Your task to perform on an android device: delete the emails in spam in the gmail app Image 0: 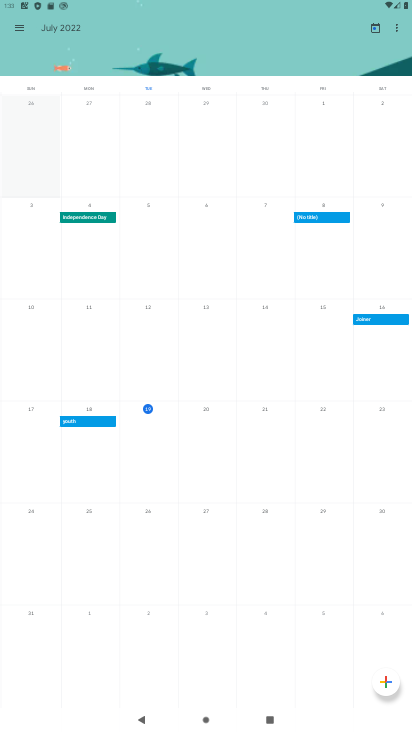
Step 0: press home button
Your task to perform on an android device: delete the emails in spam in the gmail app Image 1: 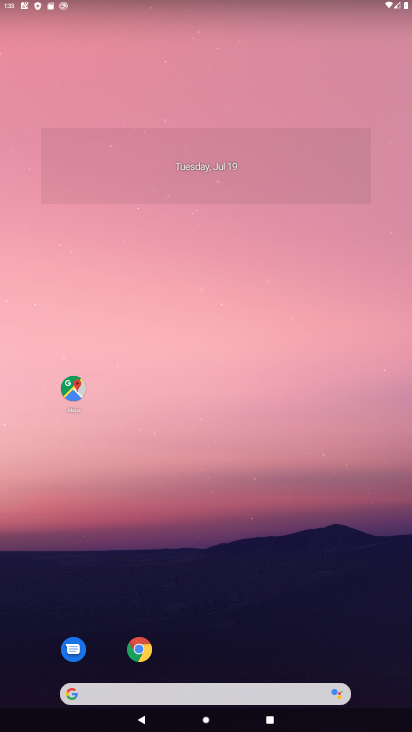
Step 1: drag from (270, 633) to (330, 307)
Your task to perform on an android device: delete the emails in spam in the gmail app Image 2: 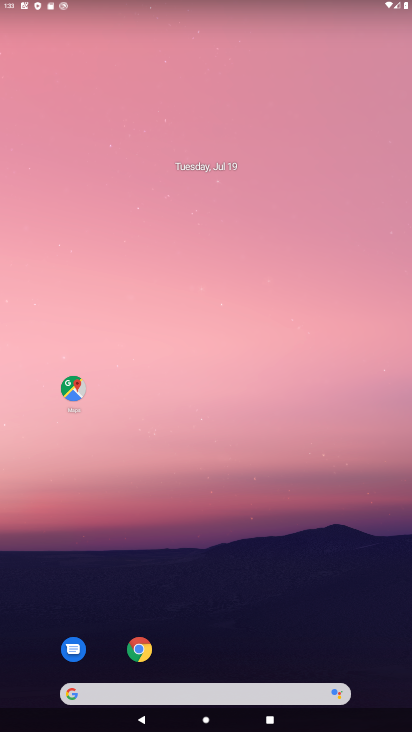
Step 2: drag from (244, 541) to (296, 221)
Your task to perform on an android device: delete the emails in spam in the gmail app Image 3: 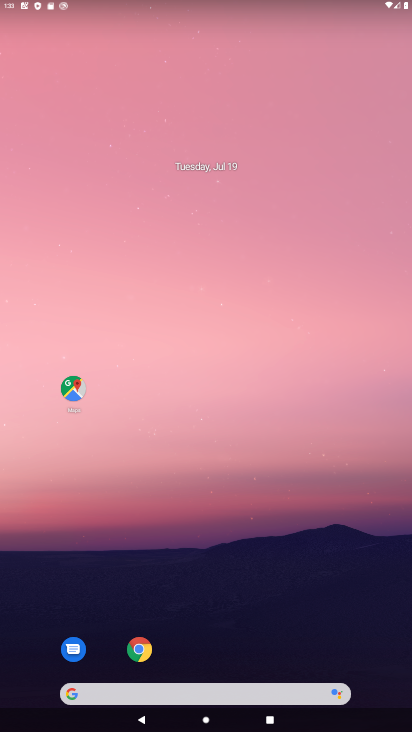
Step 3: drag from (294, 533) to (336, 109)
Your task to perform on an android device: delete the emails in spam in the gmail app Image 4: 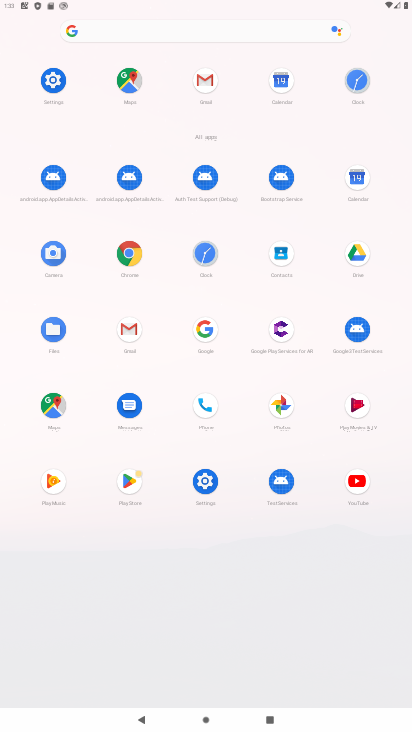
Step 4: click (126, 337)
Your task to perform on an android device: delete the emails in spam in the gmail app Image 5: 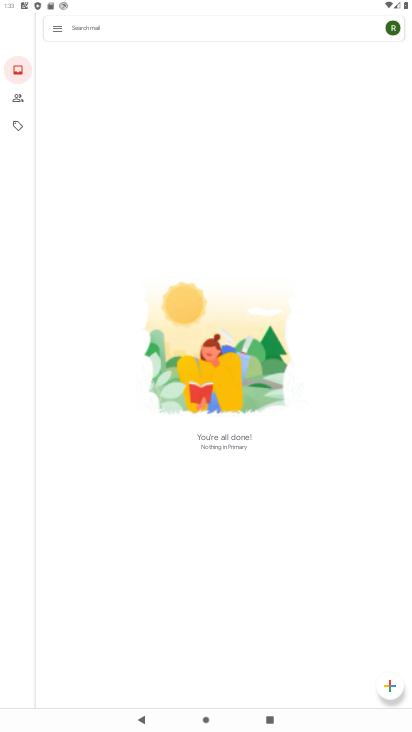
Step 5: click (58, 32)
Your task to perform on an android device: delete the emails in spam in the gmail app Image 6: 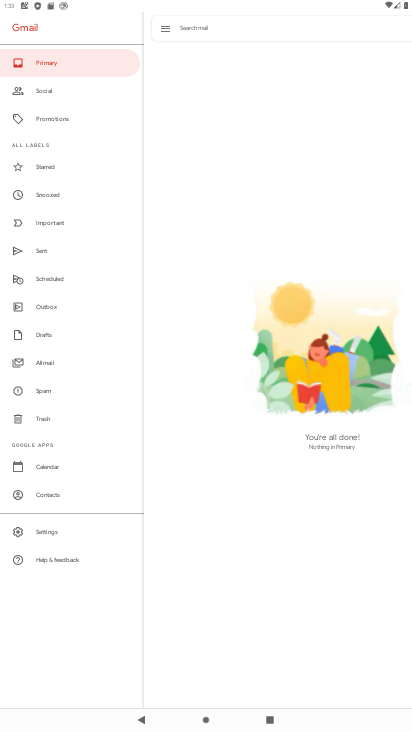
Step 6: click (39, 394)
Your task to perform on an android device: delete the emails in spam in the gmail app Image 7: 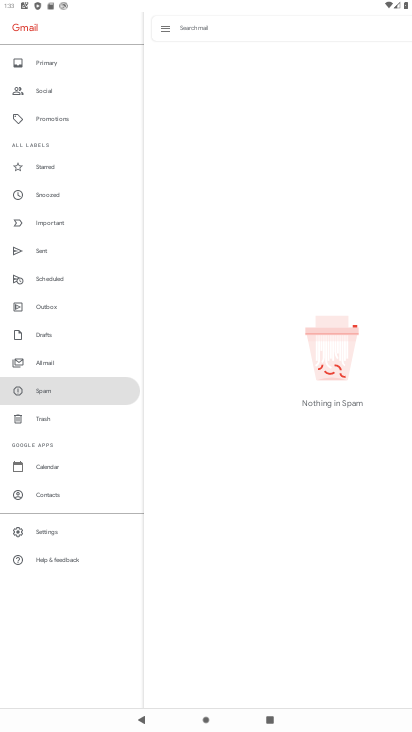
Step 7: task complete